Your task to perform on an android device: stop showing notifications on the lock screen Image 0: 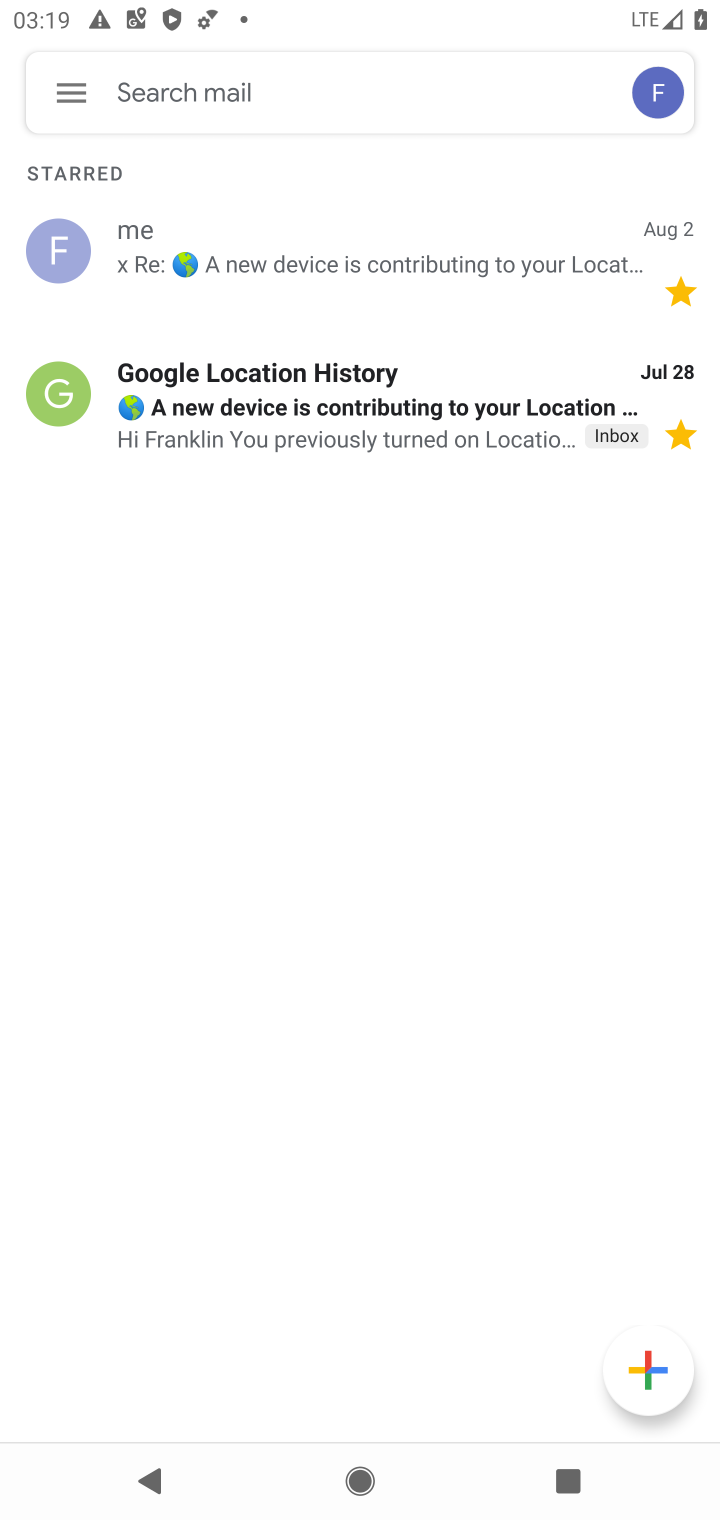
Step 0: press home button
Your task to perform on an android device: stop showing notifications on the lock screen Image 1: 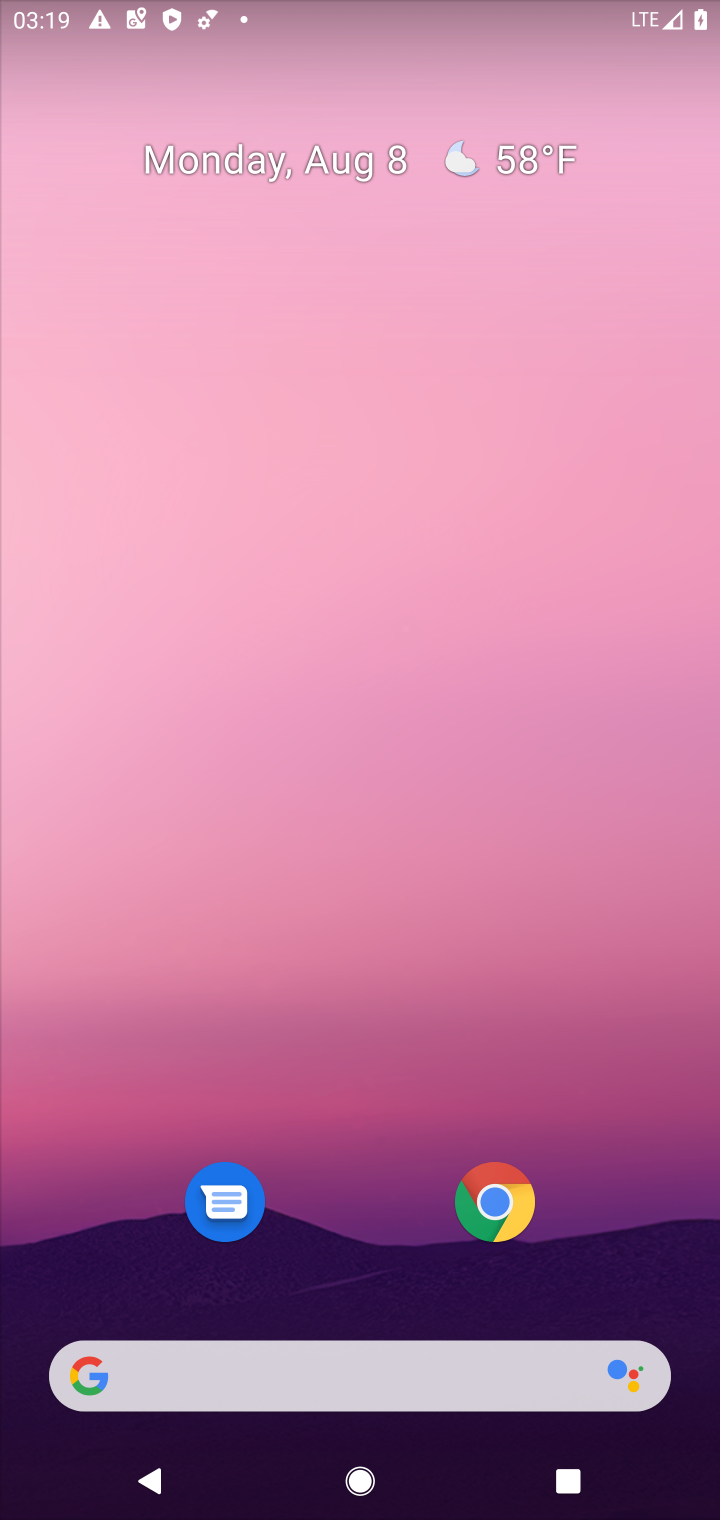
Step 1: drag from (360, 535) to (364, 161)
Your task to perform on an android device: stop showing notifications on the lock screen Image 2: 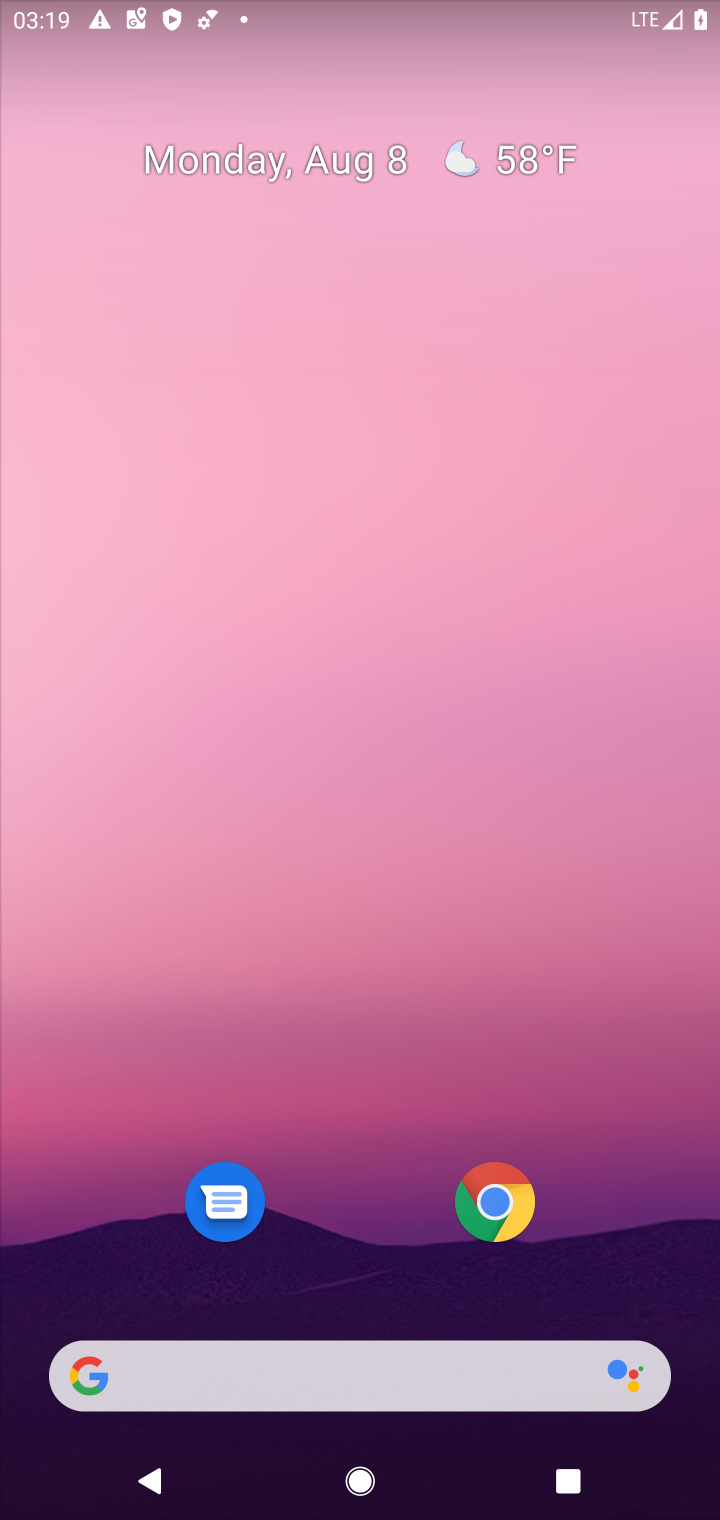
Step 2: drag from (381, 1117) to (336, 268)
Your task to perform on an android device: stop showing notifications on the lock screen Image 3: 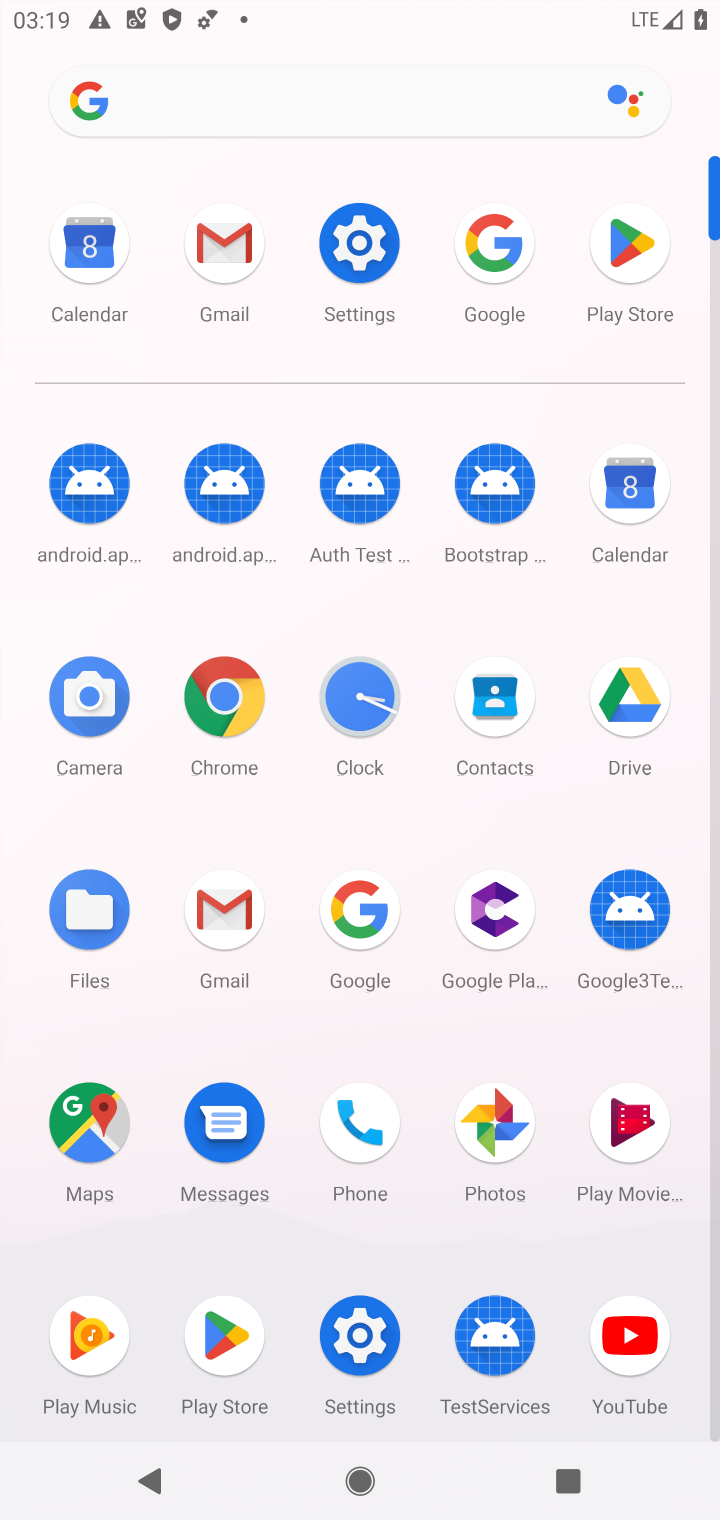
Step 3: click (355, 247)
Your task to perform on an android device: stop showing notifications on the lock screen Image 4: 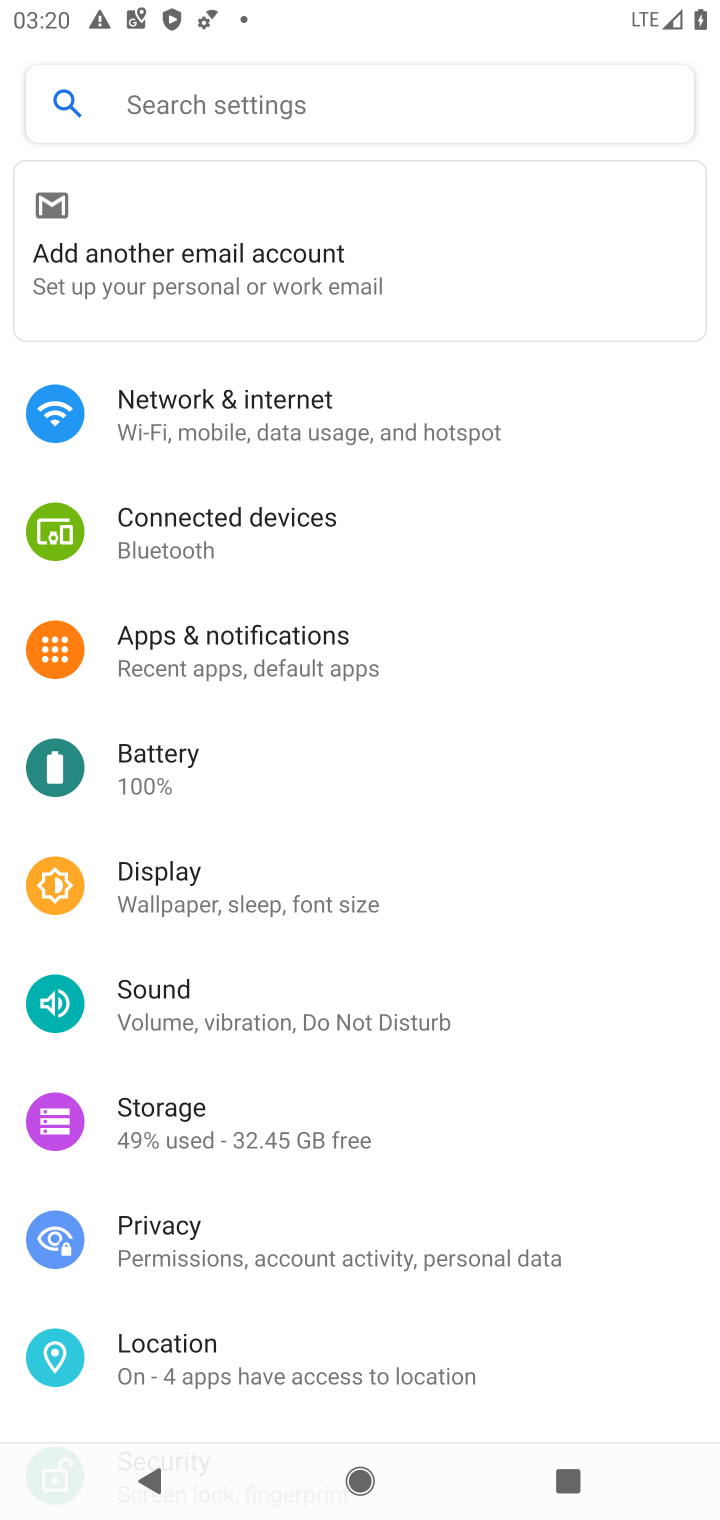
Step 4: drag from (313, 838) to (291, 448)
Your task to perform on an android device: stop showing notifications on the lock screen Image 5: 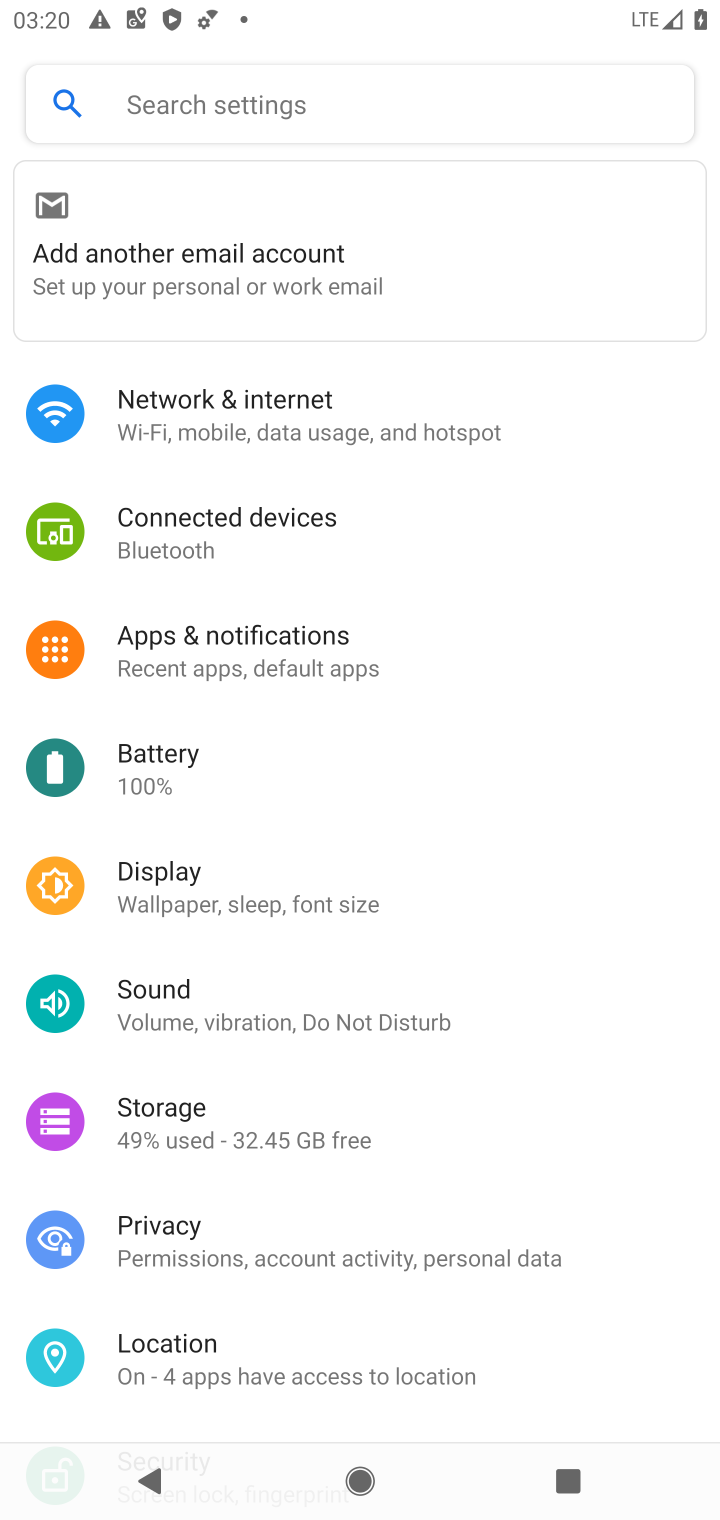
Step 5: drag from (242, 1070) to (355, 465)
Your task to perform on an android device: stop showing notifications on the lock screen Image 6: 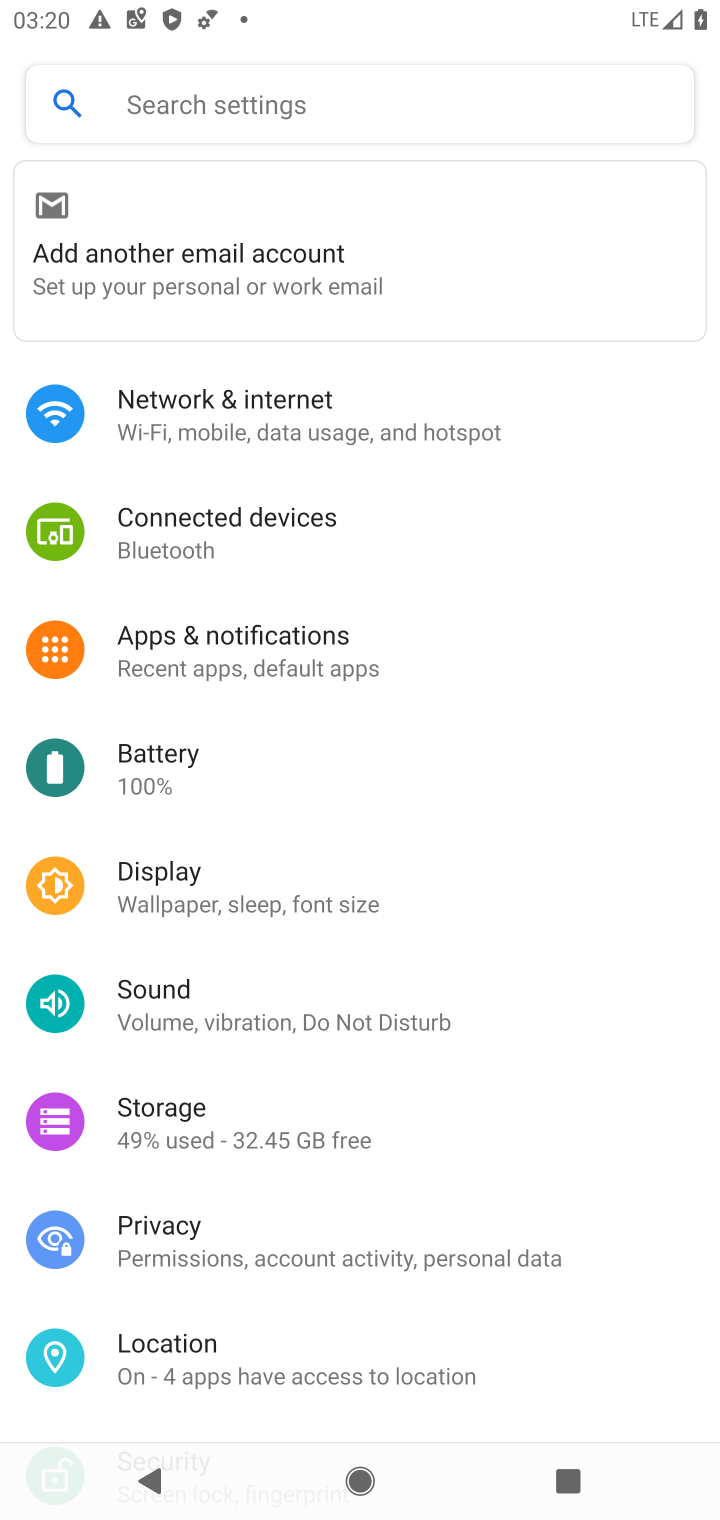
Step 6: click (260, 624)
Your task to perform on an android device: stop showing notifications on the lock screen Image 7: 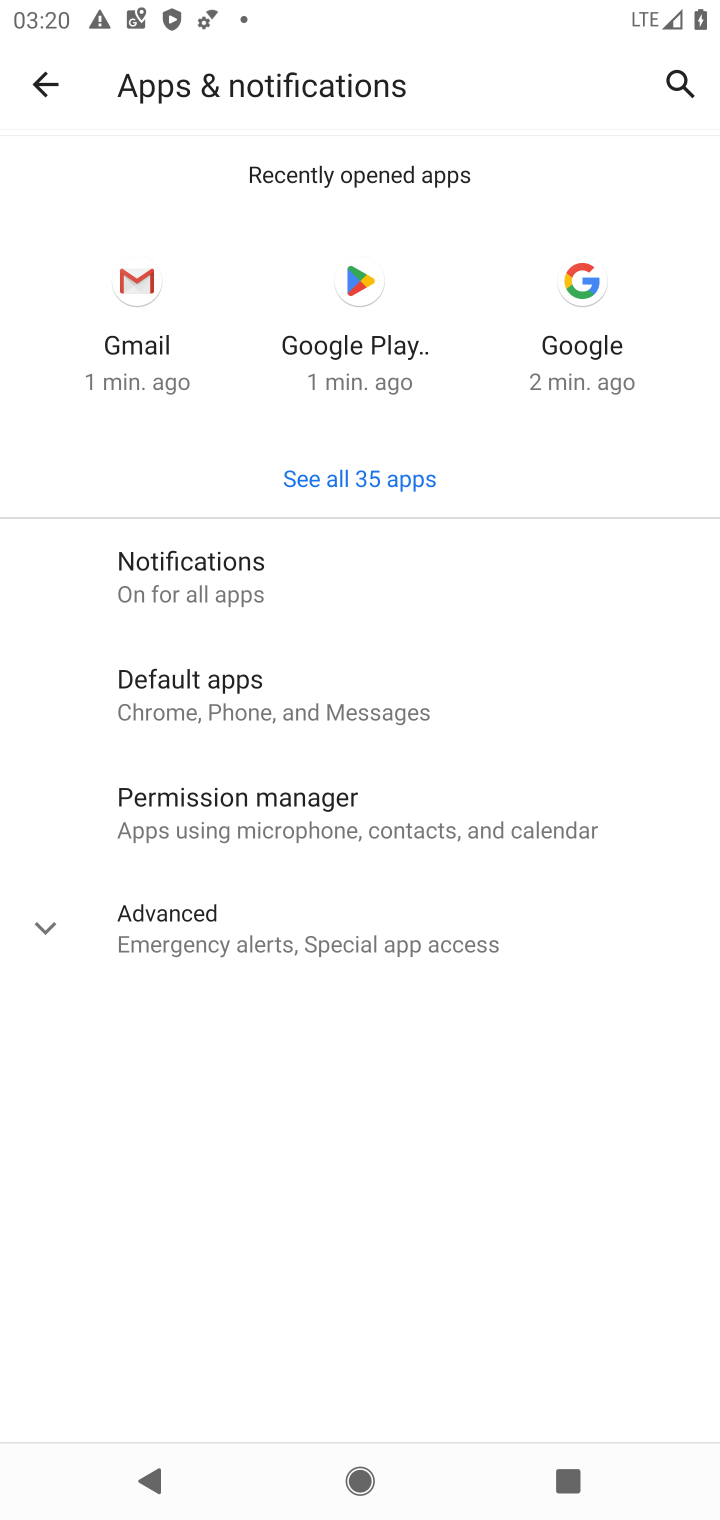
Step 7: click (226, 586)
Your task to perform on an android device: stop showing notifications on the lock screen Image 8: 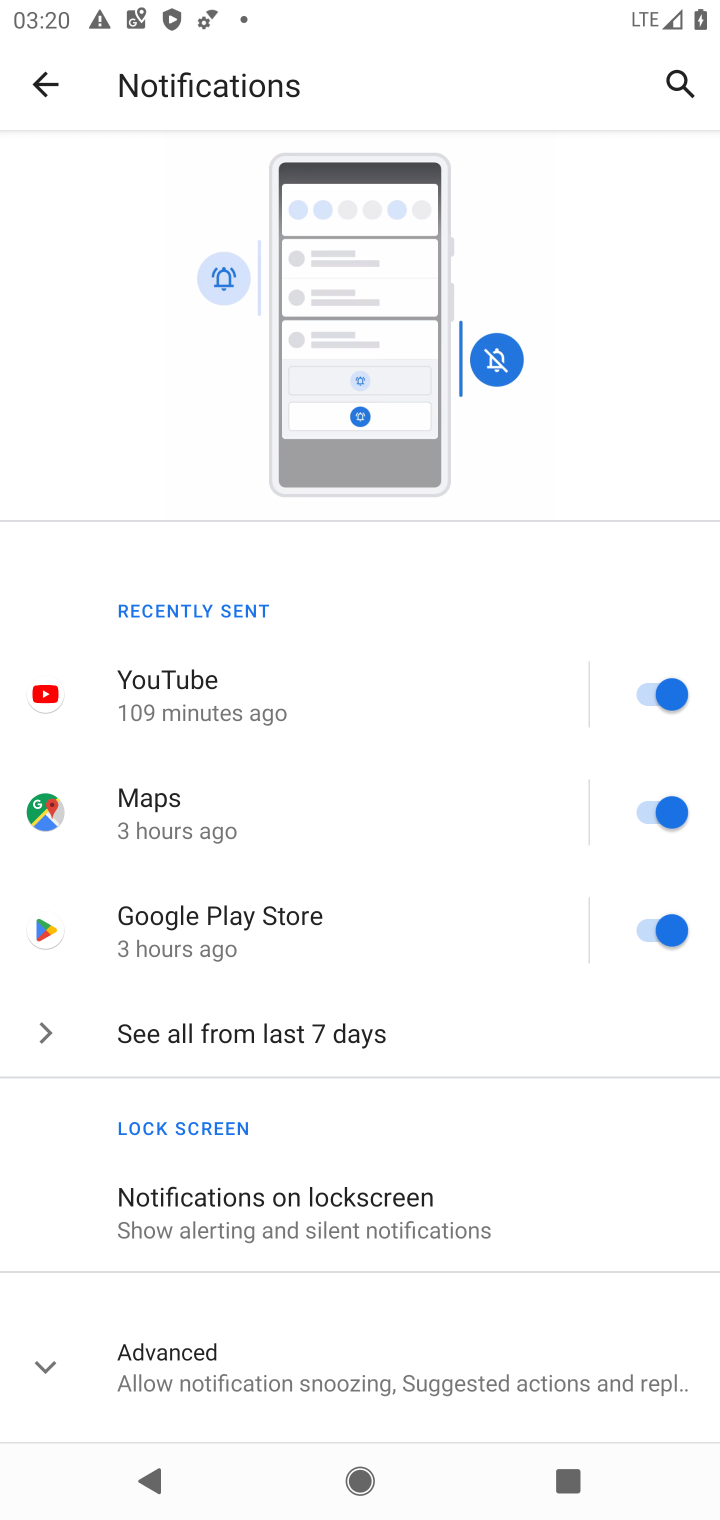
Step 8: click (280, 1193)
Your task to perform on an android device: stop showing notifications on the lock screen Image 9: 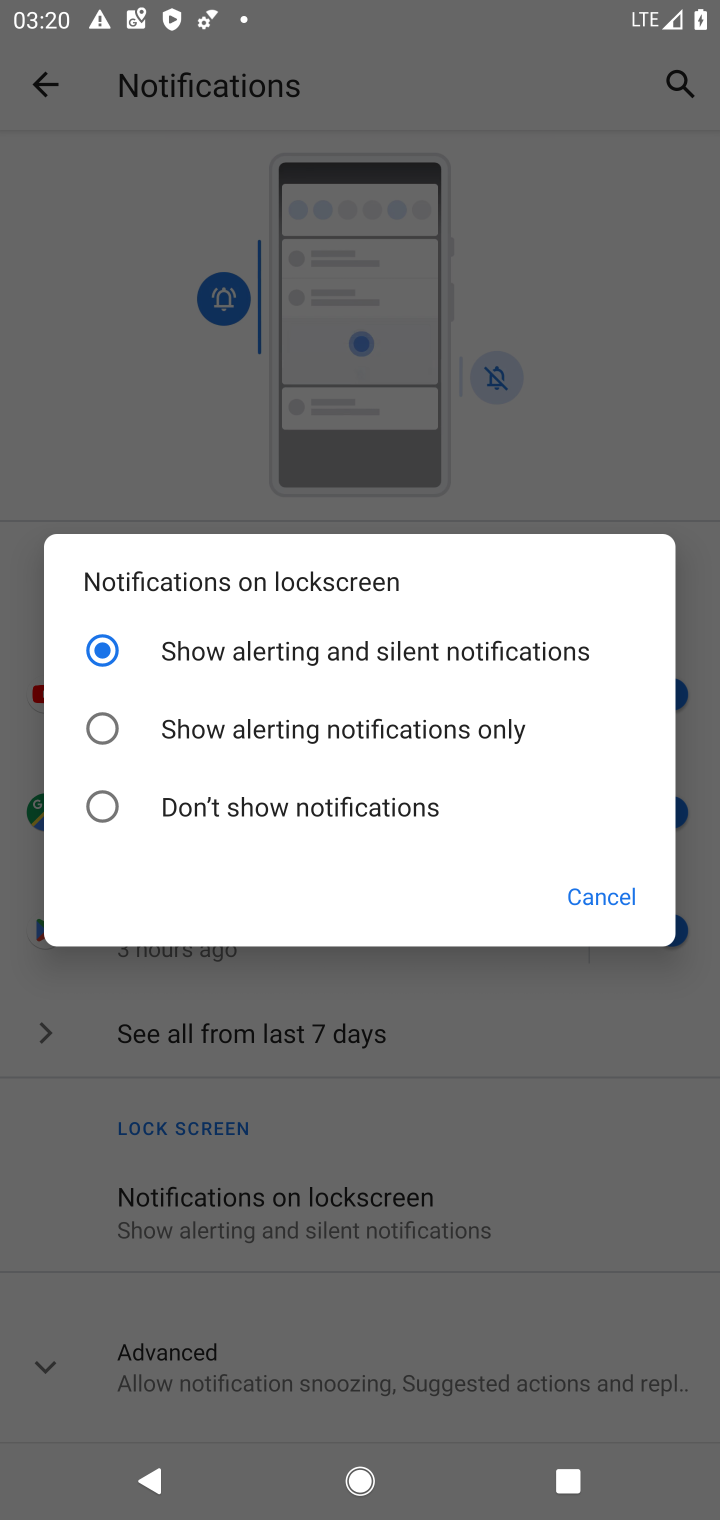
Step 9: click (114, 797)
Your task to perform on an android device: stop showing notifications on the lock screen Image 10: 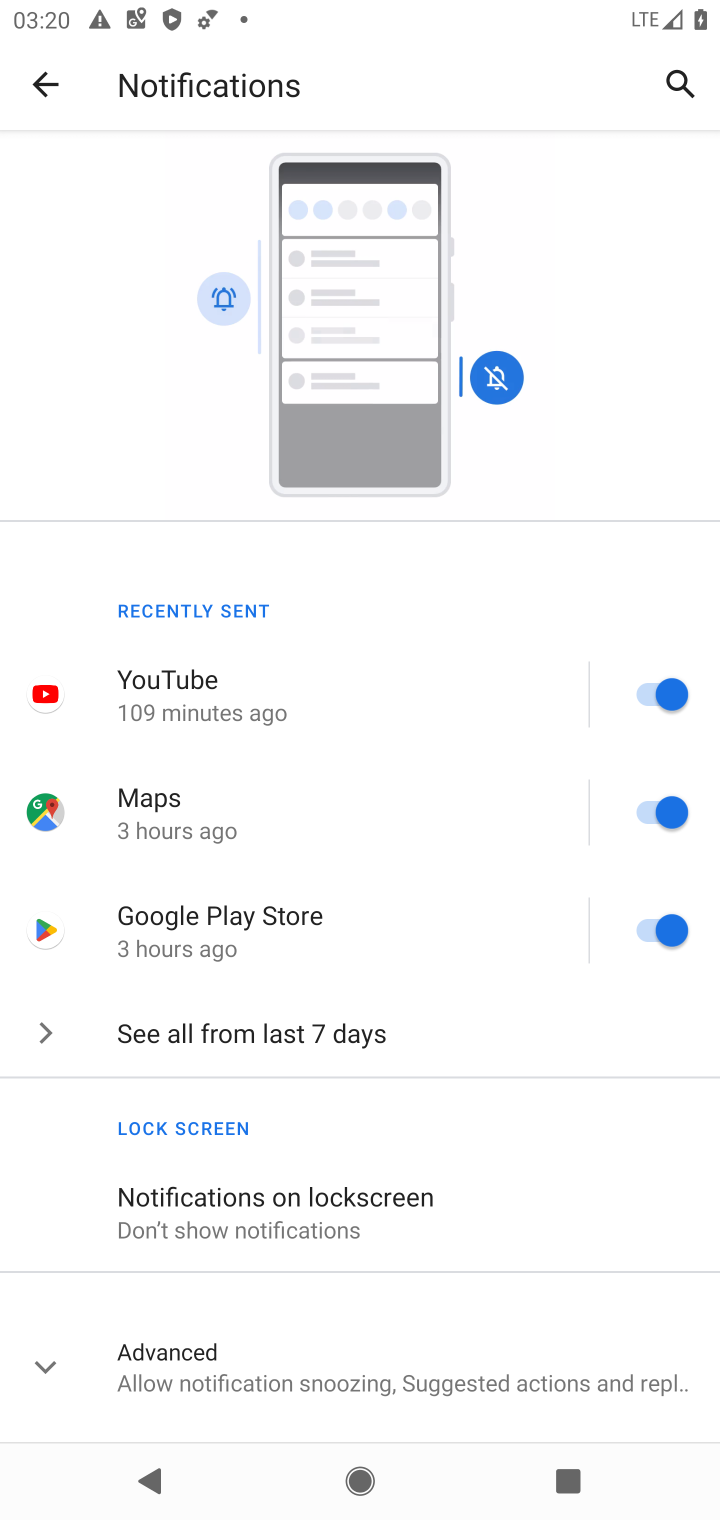
Step 10: task complete